Your task to perform on an android device: Open Google Chrome Image 0: 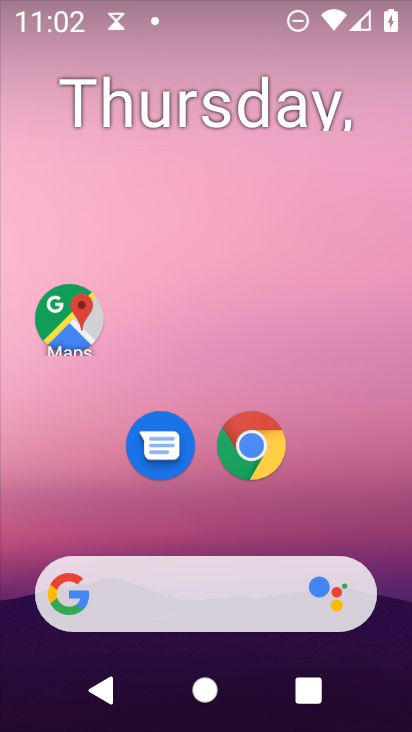
Step 0: click (234, 451)
Your task to perform on an android device: Open Google Chrome Image 1: 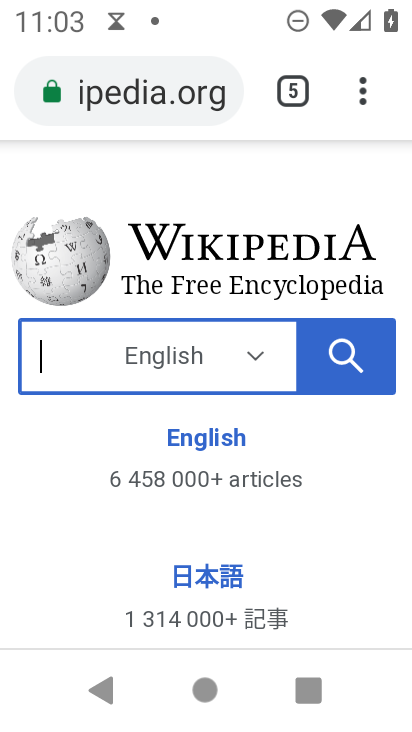
Step 1: task complete